Your task to perform on an android device: turn on the 24-hour format for clock Image 0: 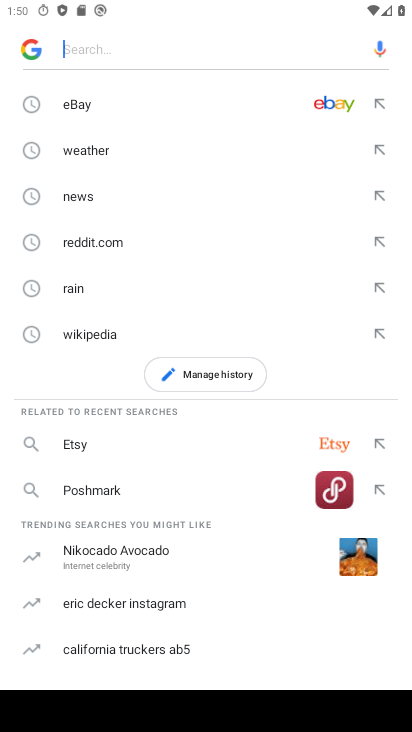
Step 0: drag from (271, 562) to (320, 233)
Your task to perform on an android device: turn on the 24-hour format for clock Image 1: 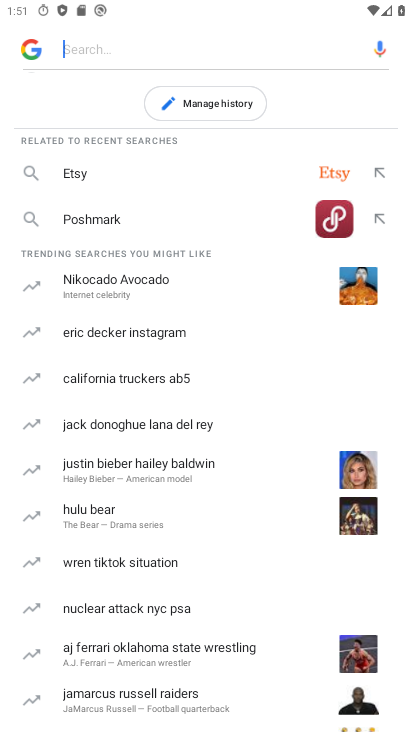
Step 1: drag from (236, 629) to (247, 403)
Your task to perform on an android device: turn on the 24-hour format for clock Image 2: 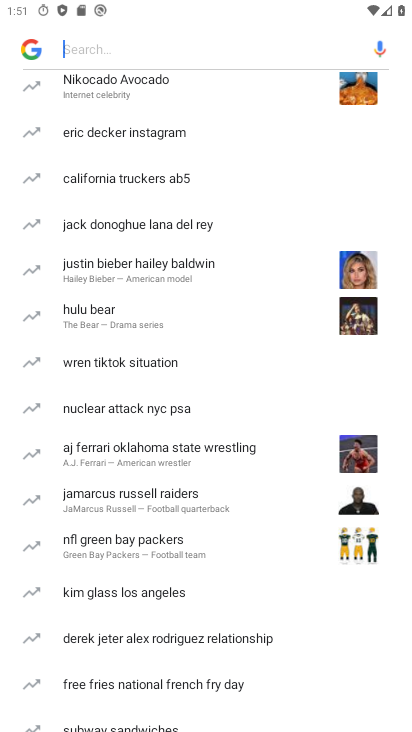
Step 2: drag from (229, 608) to (240, 432)
Your task to perform on an android device: turn on the 24-hour format for clock Image 3: 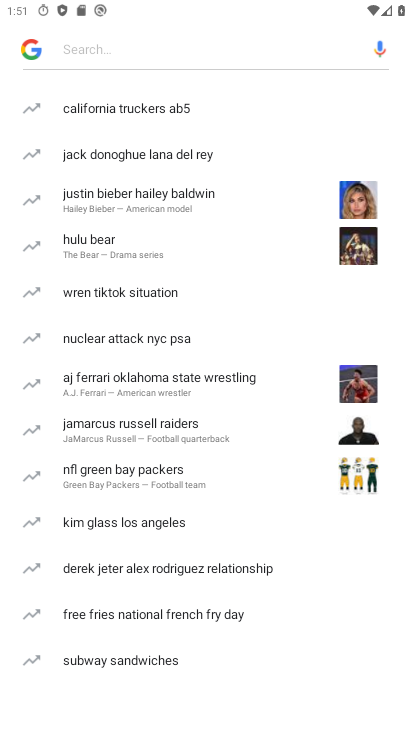
Step 3: drag from (203, 648) to (209, 485)
Your task to perform on an android device: turn on the 24-hour format for clock Image 4: 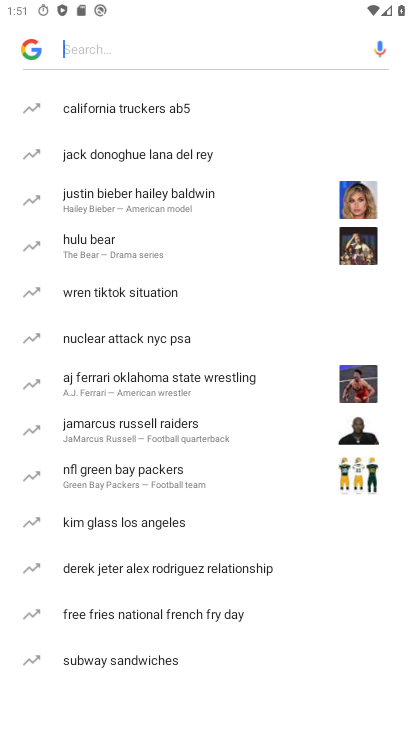
Step 4: press home button
Your task to perform on an android device: turn on the 24-hour format for clock Image 5: 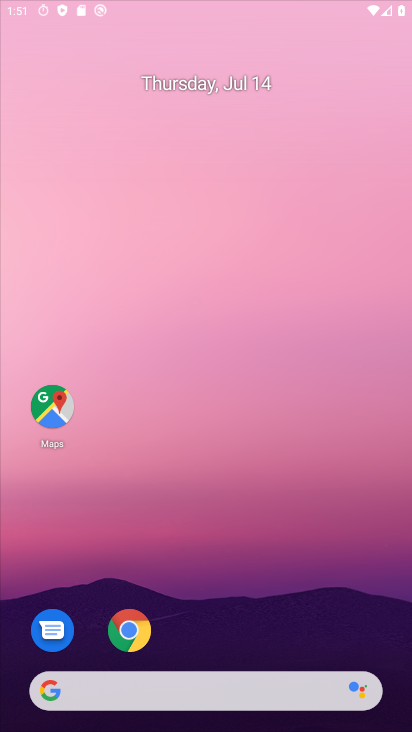
Step 5: drag from (207, 607) to (296, 140)
Your task to perform on an android device: turn on the 24-hour format for clock Image 6: 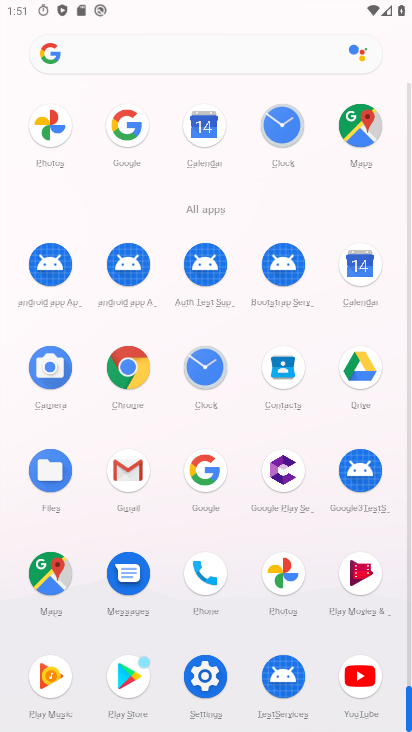
Step 6: drag from (185, 642) to (232, 317)
Your task to perform on an android device: turn on the 24-hour format for clock Image 7: 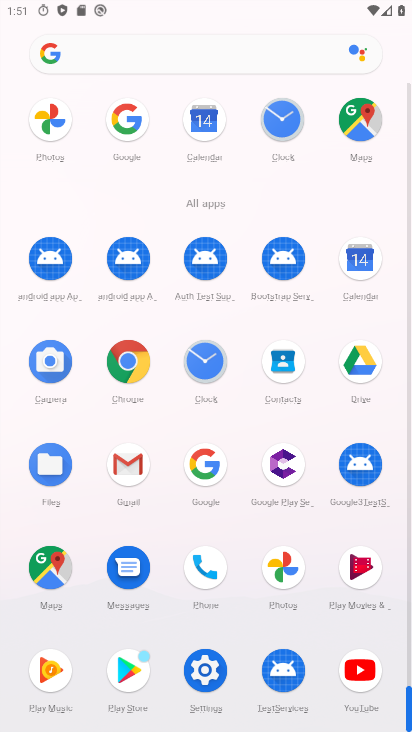
Step 7: click (242, 58)
Your task to perform on an android device: turn on the 24-hour format for clock Image 8: 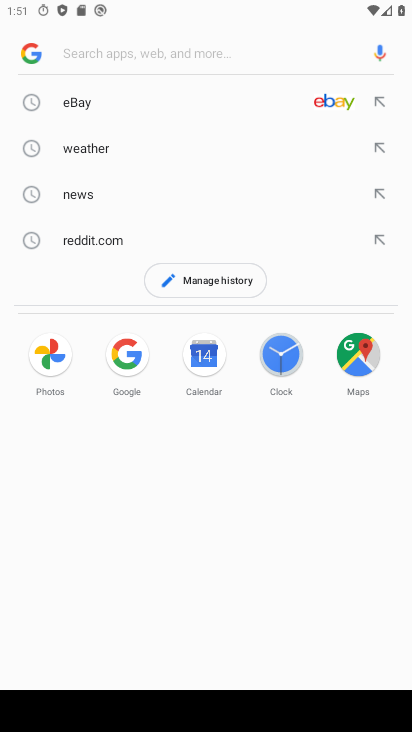
Step 8: drag from (167, 559) to (175, 329)
Your task to perform on an android device: turn on the 24-hour format for clock Image 9: 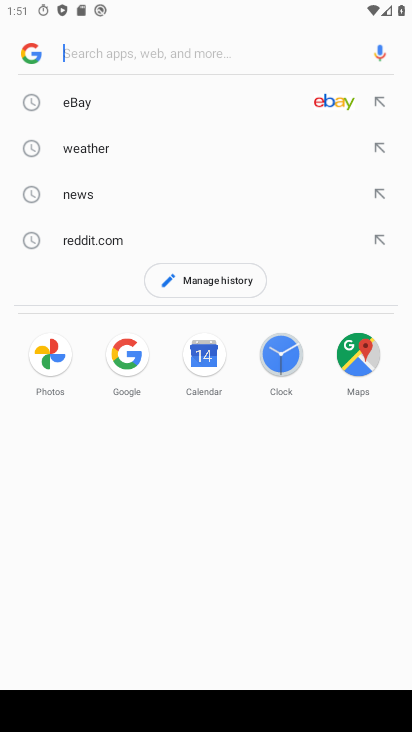
Step 9: drag from (276, 406) to (330, 140)
Your task to perform on an android device: turn on the 24-hour format for clock Image 10: 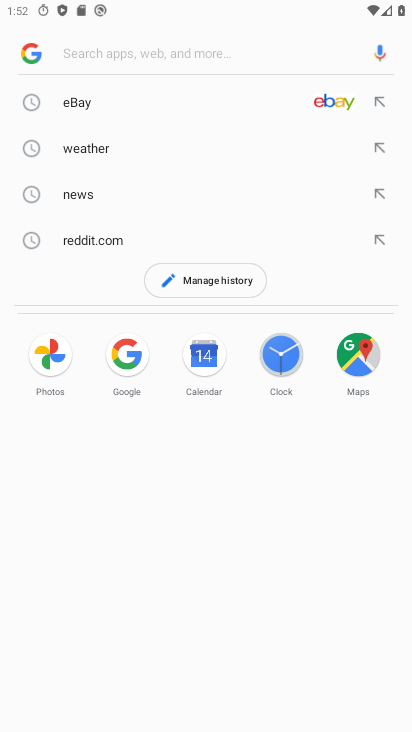
Step 10: drag from (180, 601) to (227, 247)
Your task to perform on an android device: turn on the 24-hour format for clock Image 11: 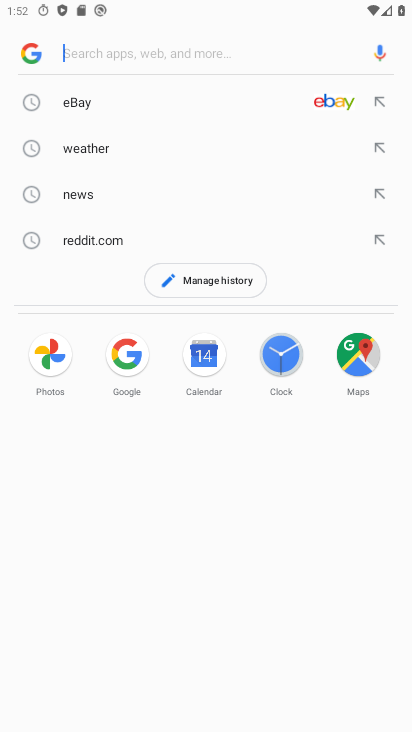
Step 11: click (137, 54)
Your task to perform on an android device: turn on the 24-hour format for clock Image 12: 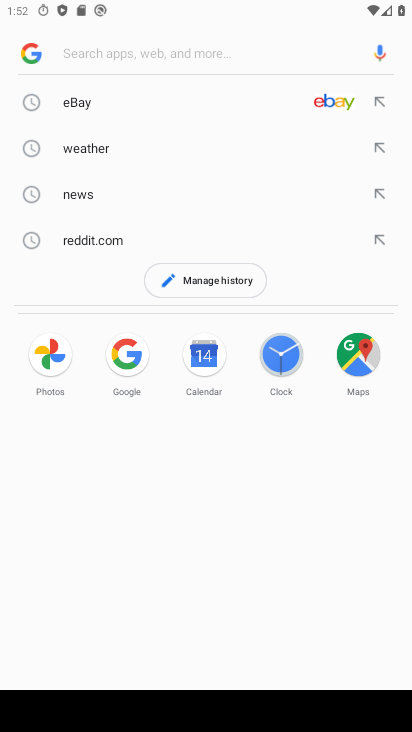
Step 12: press home button
Your task to perform on an android device: turn on the 24-hour format for clock Image 13: 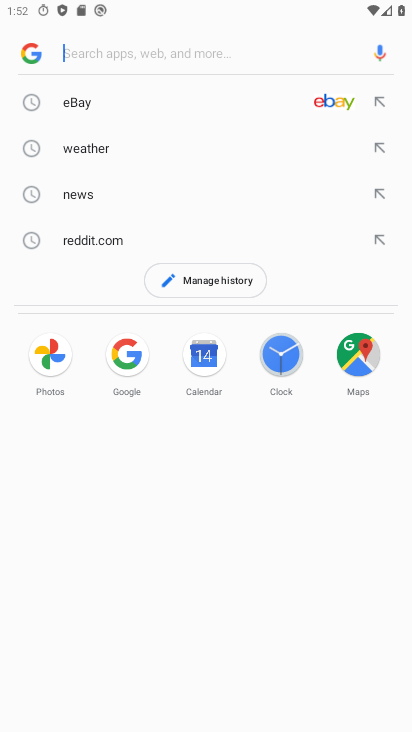
Step 13: press home button
Your task to perform on an android device: turn on the 24-hour format for clock Image 14: 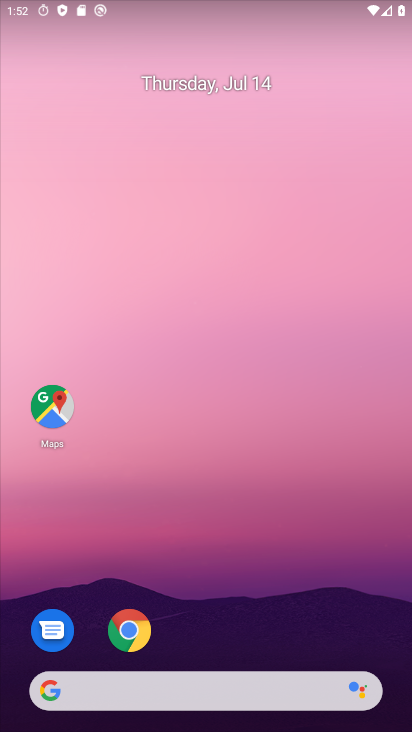
Step 14: drag from (119, 623) to (202, 99)
Your task to perform on an android device: turn on the 24-hour format for clock Image 15: 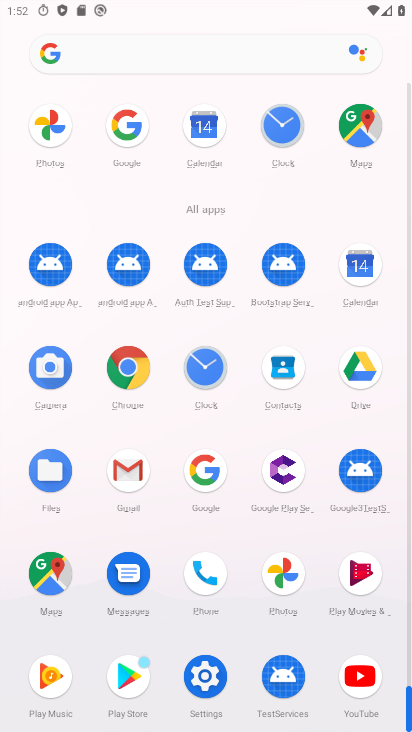
Step 15: click (204, 369)
Your task to perform on an android device: turn on the 24-hour format for clock Image 16: 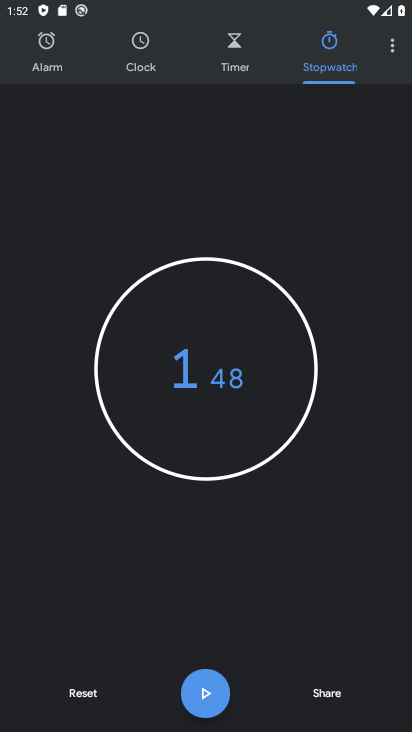
Step 16: click (396, 51)
Your task to perform on an android device: turn on the 24-hour format for clock Image 17: 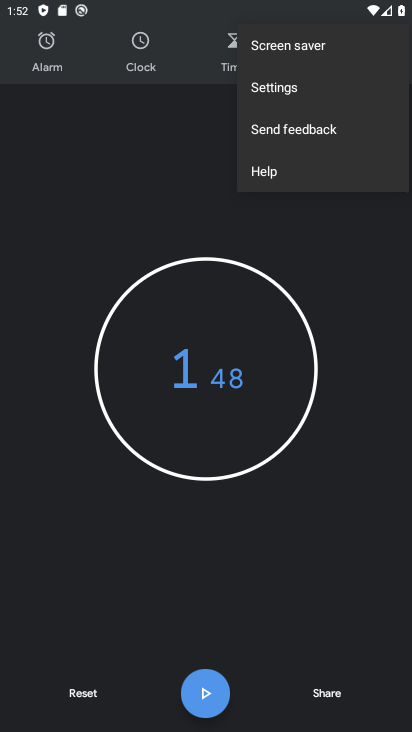
Step 17: click (293, 97)
Your task to perform on an android device: turn on the 24-hour format for clock Image 18: 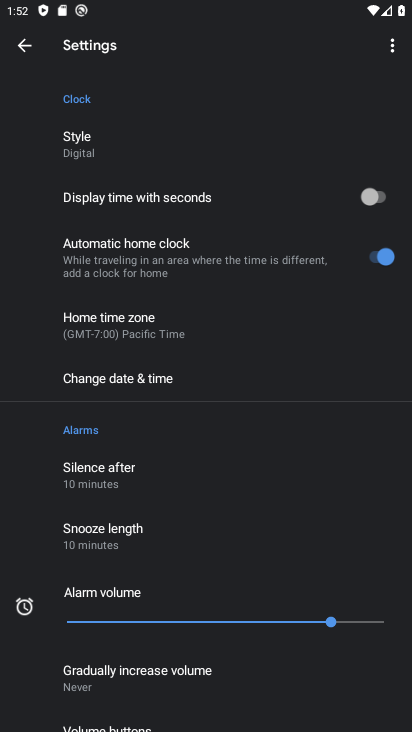
Step 18: drag from (209, 590) to (226, 190)
Your task to perform on an android device: turn on the 24-hour format for clock Image 19: 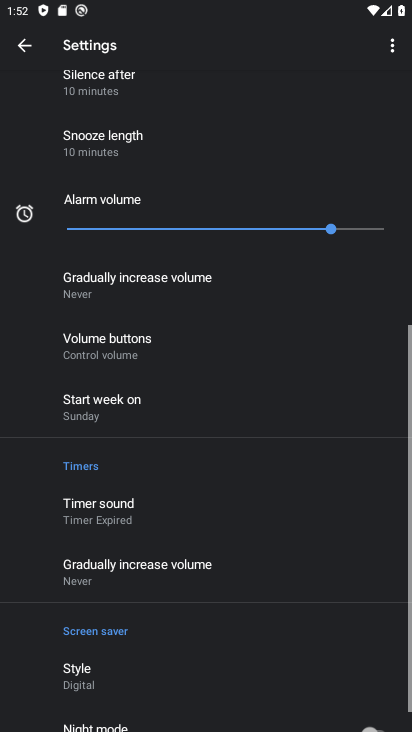
Step 19: drag from (228, 179) to (229, 649)
Your task to perform on an android device: turn on the 24-hour format for clock Image 20: 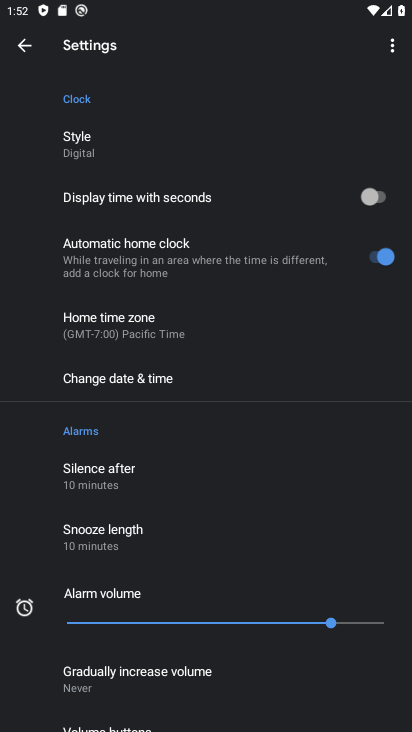
Step 20: click (163, 361)
Your task to perform on an android device: turn on the 24-hour format for clock Image 21: 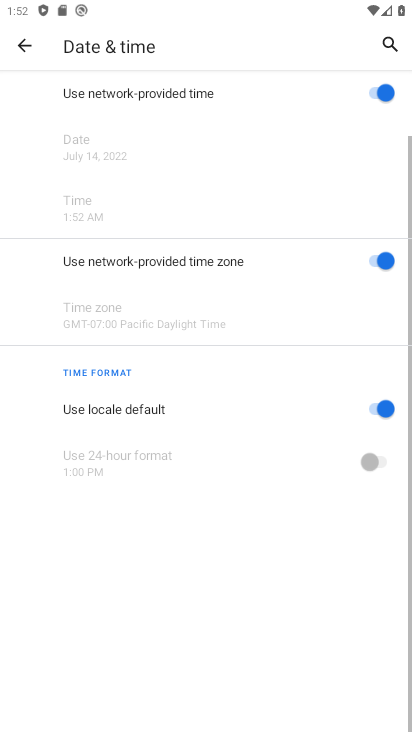
Step 21: task complete